Your task to perform on an android device: open app "ZOOM Cloud Meetings" Image 0: 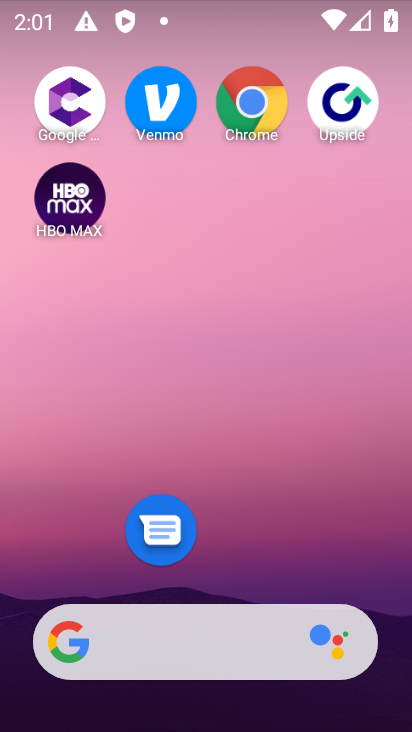
Step 0: drag from (326, 467) to (410, 119)
Your task to perform on an android device: open app "ZOOM Cloud Meetings" Image 1: 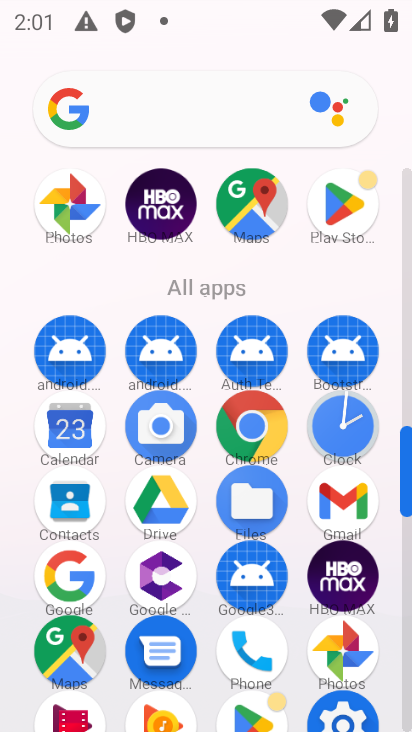
Step 1: click (338, 216)
Your task to perform on an android device: open app "ZOOM Cloud Meetings" Image 2: 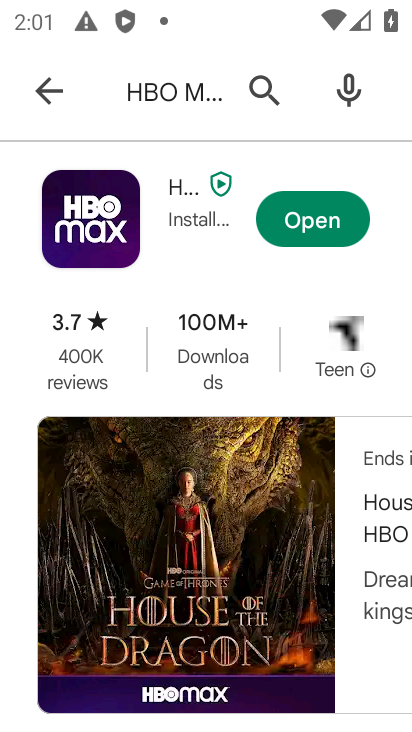
Step 2: press back button
Your task to perform on an android device: open app "ZOOM Cloud Meetings" Image 3: 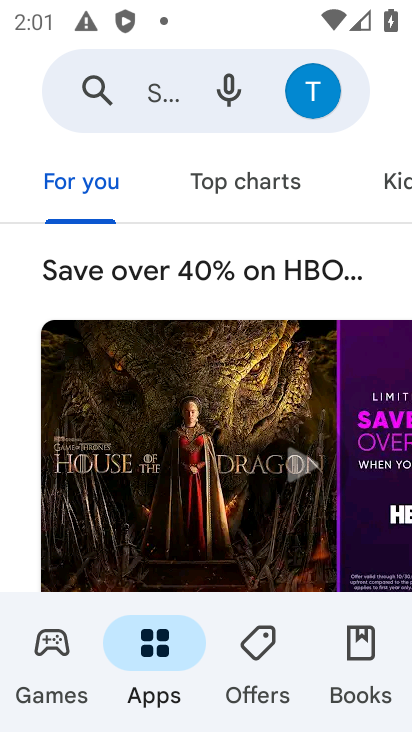
Step 3: click (165, 86)
Your task to perform on an android device: open app "ZOOM Cloud Meetings" Image 4: 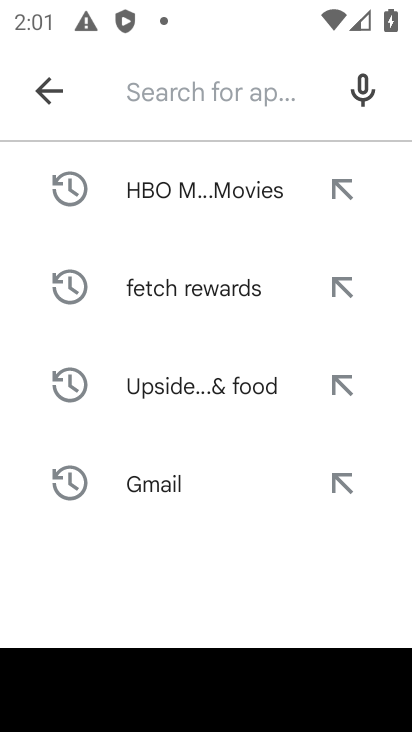
Step 4: type "ZOOM Cloud Meetings"
Your task to perform on an android device: open app "ZOOM Cloud Meetings" Image 5: 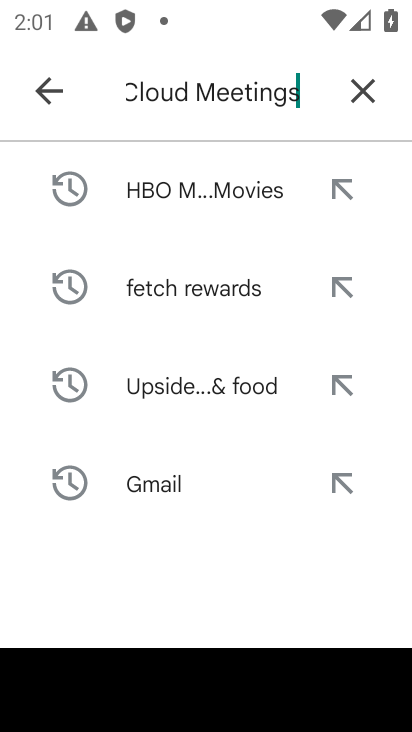
Step 5: press enter
Your task to perform on an android device: open app "ZOOM Cloud Meetings" Image 6: 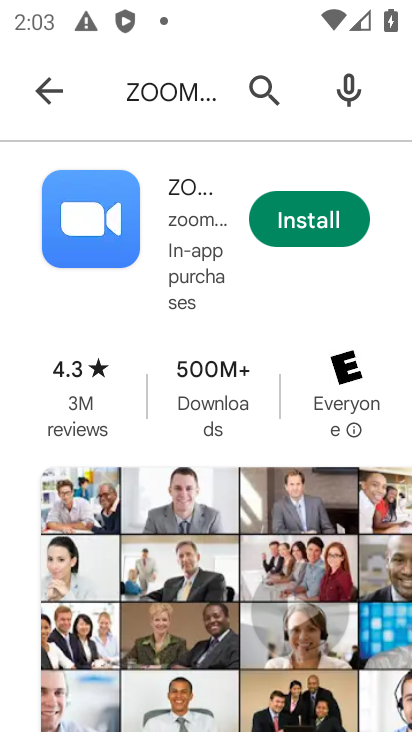
Step 6: task complete